Your task to perform on an android device: What is the recent news? Image 0: 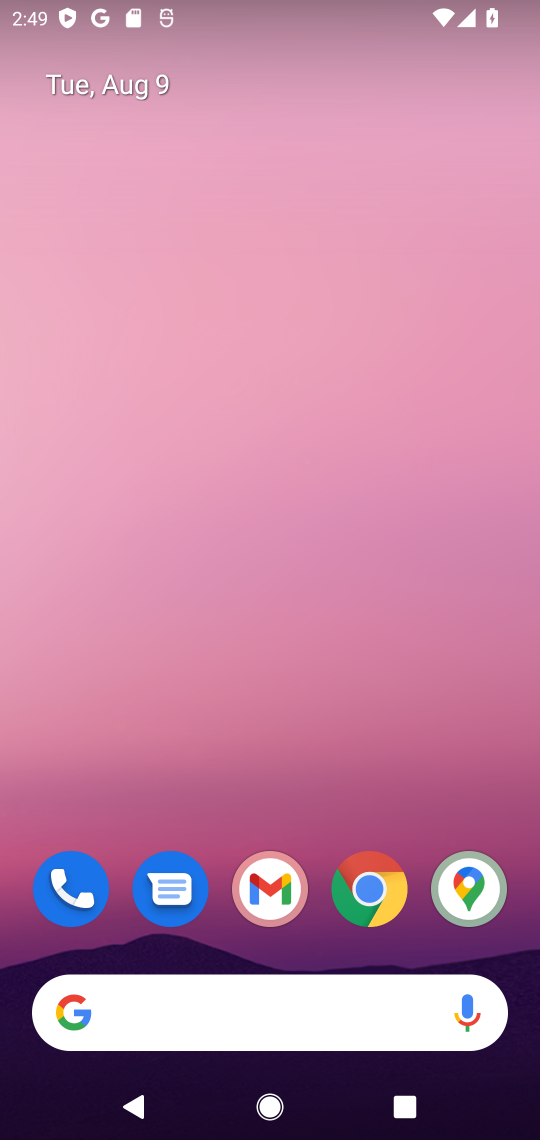
Step 0: click (255, 1012)
Your task to perform on an android device: What is the recent news? Image 1: 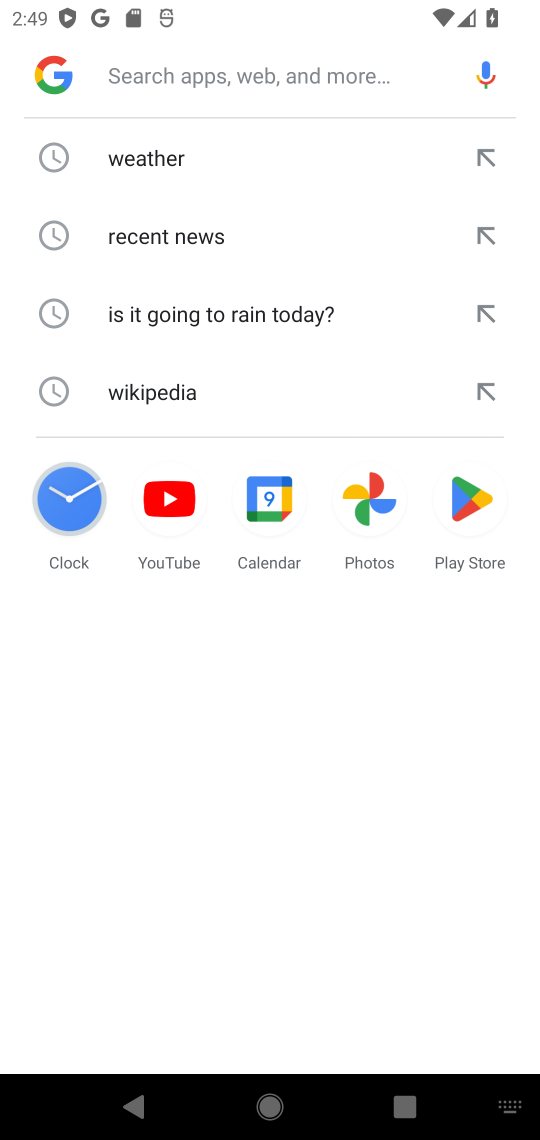
Step 1: click (208, 232)
Your task to perform on an android device: What is the recent news? Image 2: 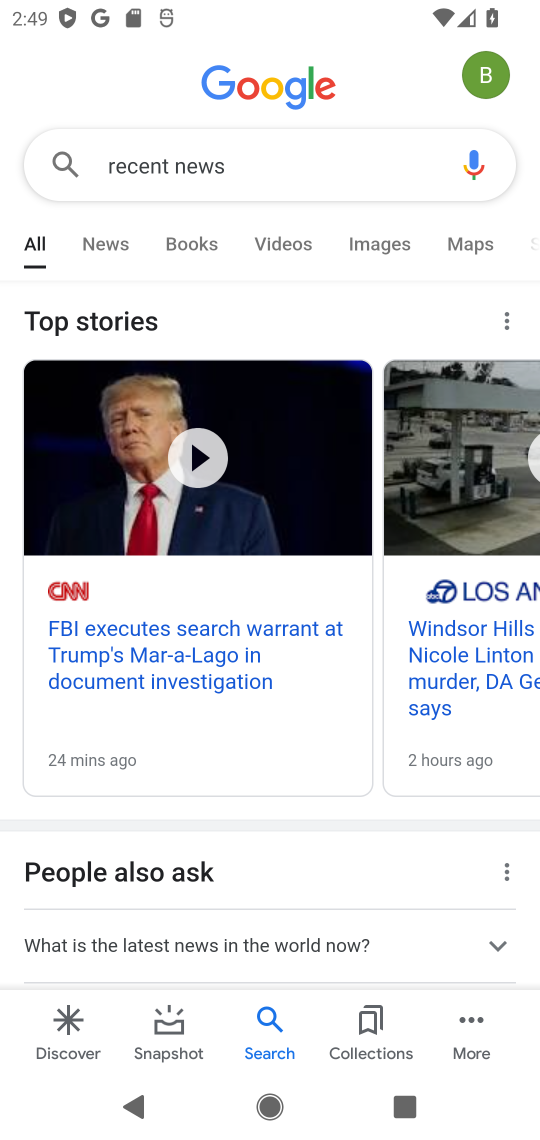
Step 2: task complete